Your task to perform on an android device: Search for pizza restaurants on Maps Image 0: 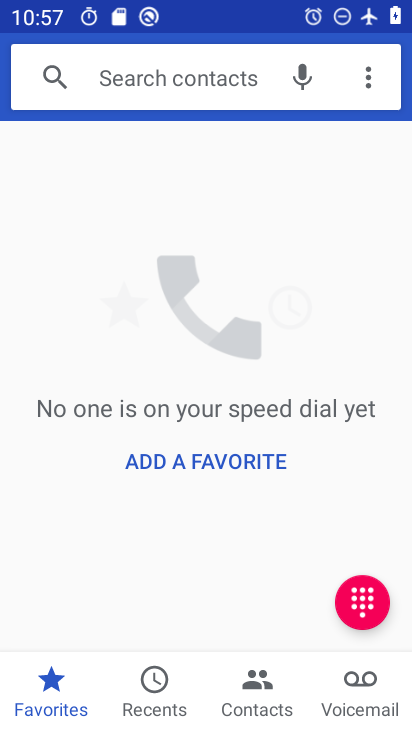
Step 0: press home button
Your task to perform on an android device: Search for pizza restaurants on Maps Image 1: 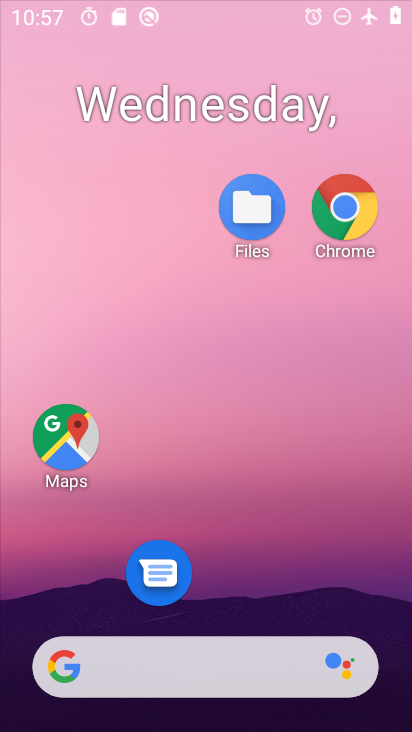
Step 1: drag from (248, 641) to (299, 142)
Your task to perform on an android device: Search for pizza restaurants on Maps Image 2: 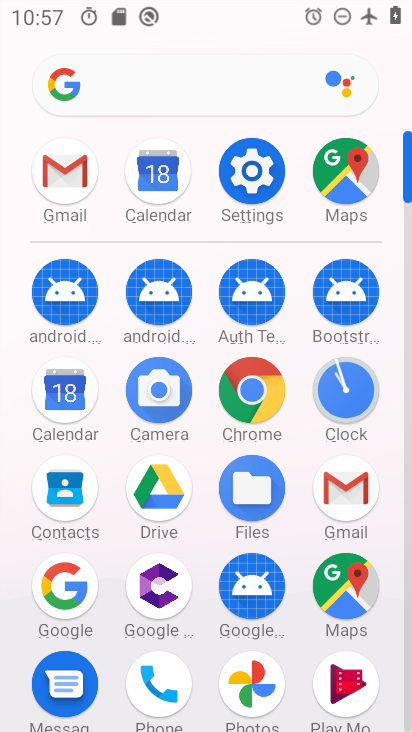
Step 2: click (345, 185)
Your task to perform on an android device: Search for pizza restaurants on Maps Image 3: 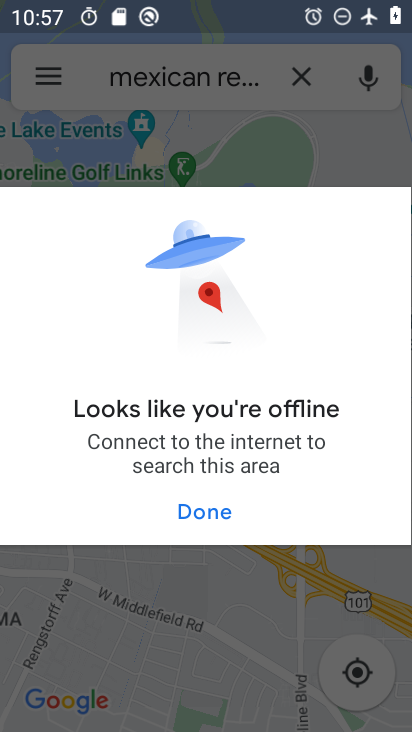
Step 3: click (212, 537)
Your task to perform on an android device: Search for pizza restaurants on Maps Image 4: 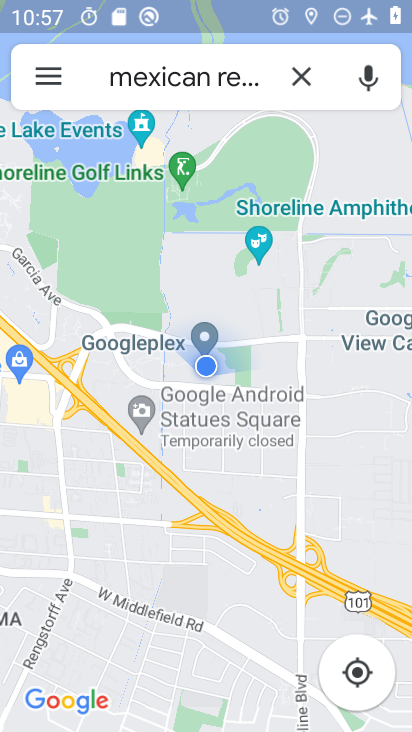
Step 4: click (315, 79)
Your task to perform on an android device: Search for pizza restaurants on Maps Image 5: 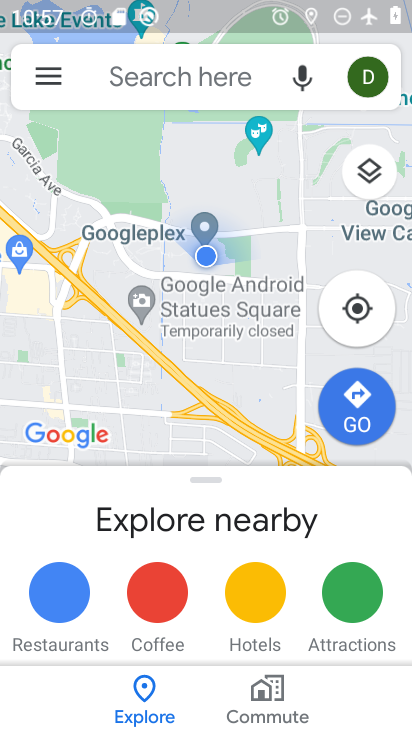
Step 5: click (152, 76)
Your task to perform on an android device: Search for pizza restaurants on Maps Image 6: 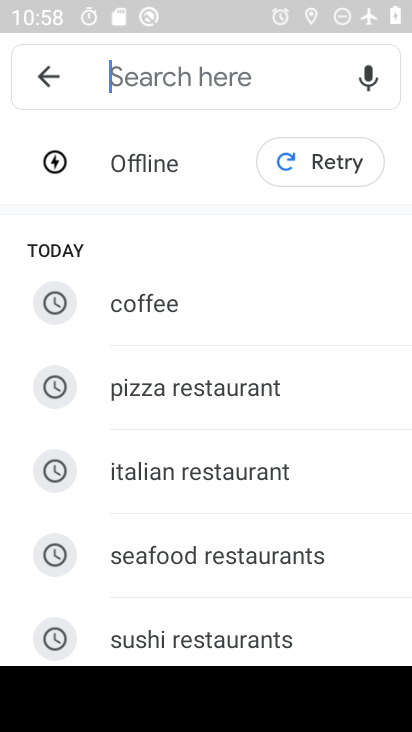
Step 6: click (290, 381)
Your task to perform on an android device: Search for pizza restaurants on Maps Image 7: 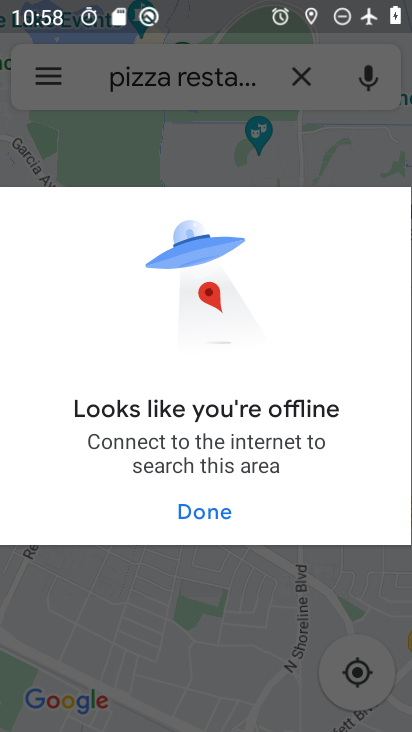
Step 7: task complete